Your task to perform on an android device: change notifications settings Image 0: 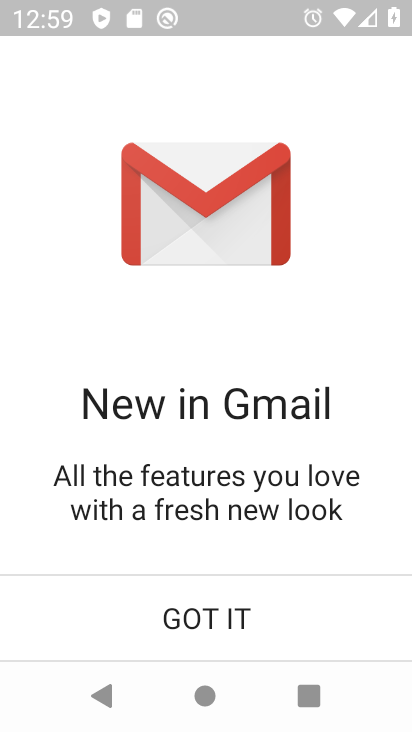
Step 0: press home button
Your task to perform on an android device: change notifications settings Image 1: 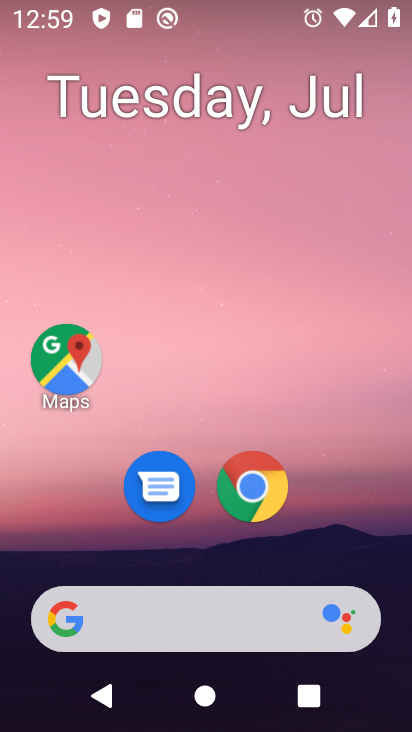
Step 1: drag from (354, 527) to (375, 142)
Your task to perform on an android device: change notifications settings Image 2: 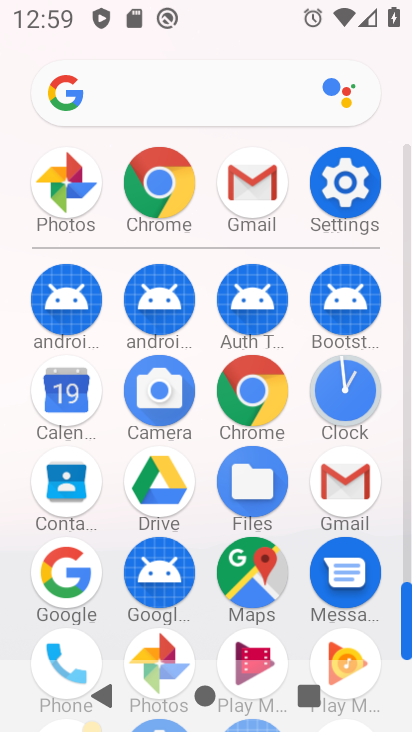
Step 2: click (355, 195)
Your task to perform on an android device: change notifications settings Image 3: 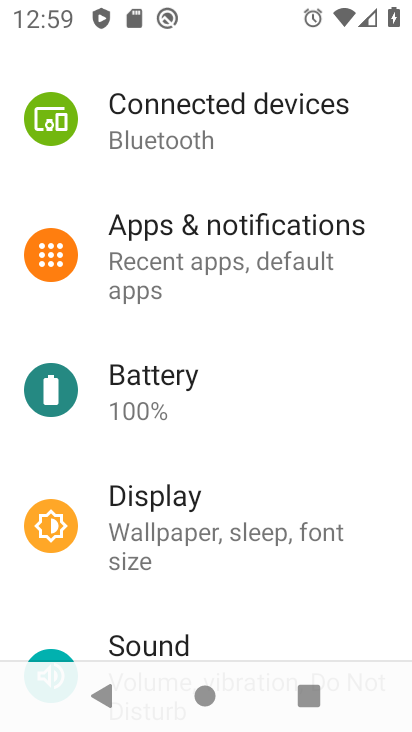
Step 3: drag from (350, 192) to (337, 327)
Your task to perform on an android device: change notifications settings Image 4: 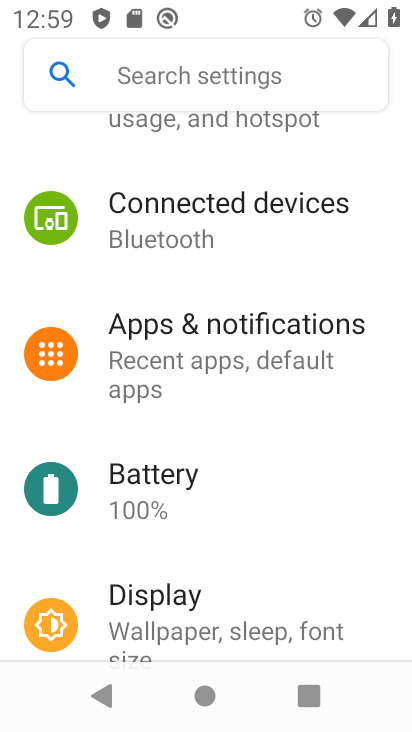
Step 4: drag from (346, 219) to (348, 334)
Your task to perform on an android device: change notifications settings Image 5: 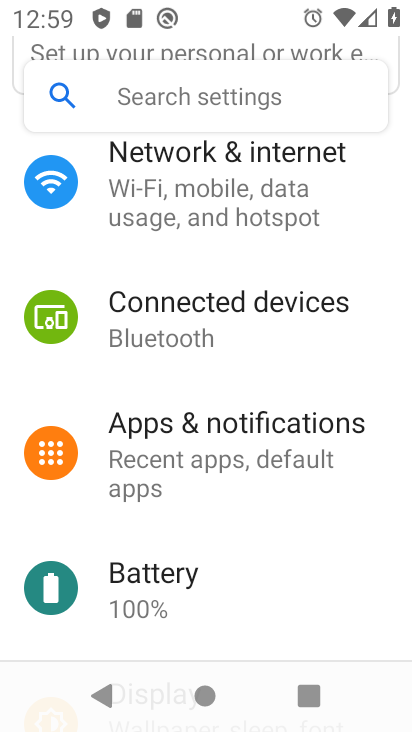
Step 5: drag from (358, 214) to (353, 422)
Your task to perform on an android device: change notifications settings Image 6: 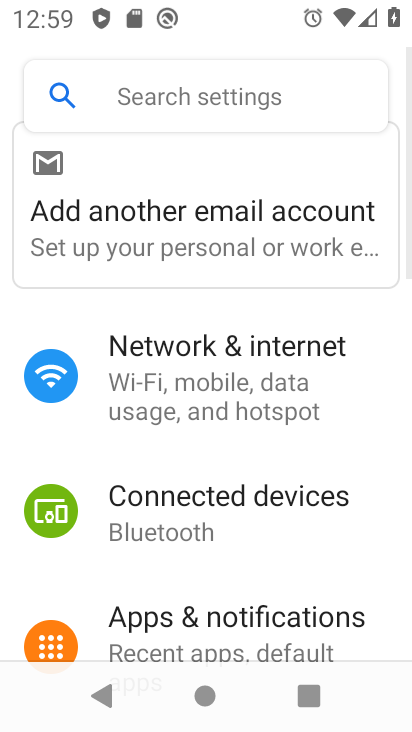
Step 6: drag from (354, 470) to (366, 367)
Your task to perform on an android device: change notifications settings Image 7: 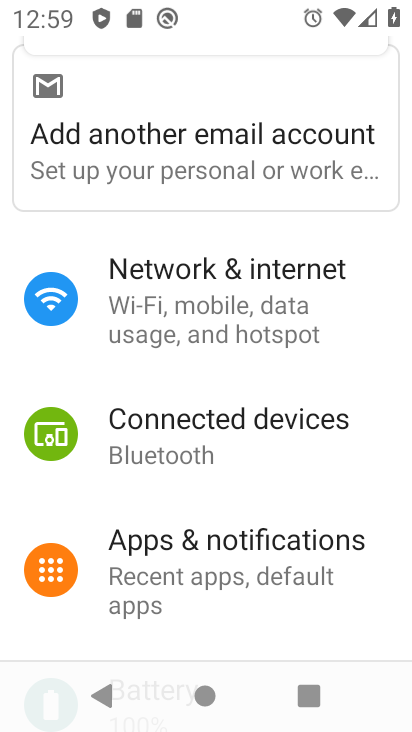
Step 7: drag from (350, 478) to (352, 357)
Your task to perform on an android device: change notifications settings Image 8: 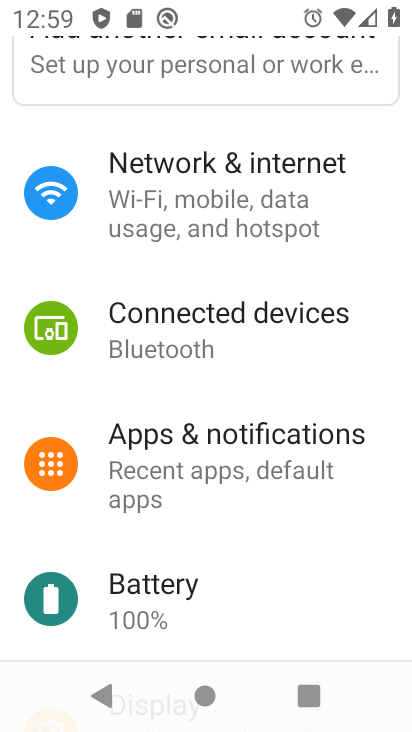
Step 8: drag from (346, 516) to (350, 397)
Your task to perform on an android device: change notifications settings Image 9: 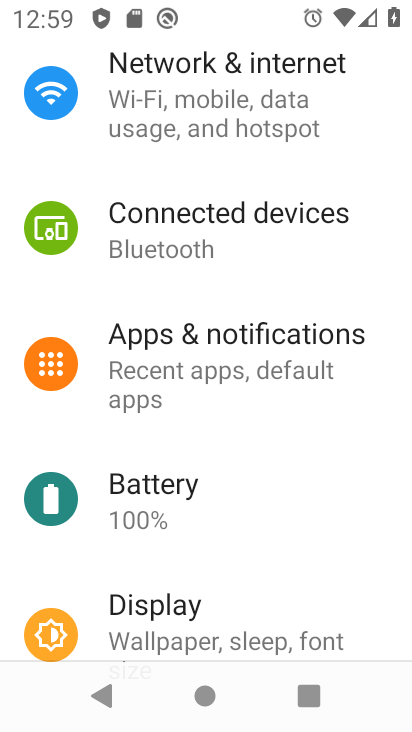
Step 9: click (268, 356)
Your task to perform on an android device: change notifications settings Image 10: 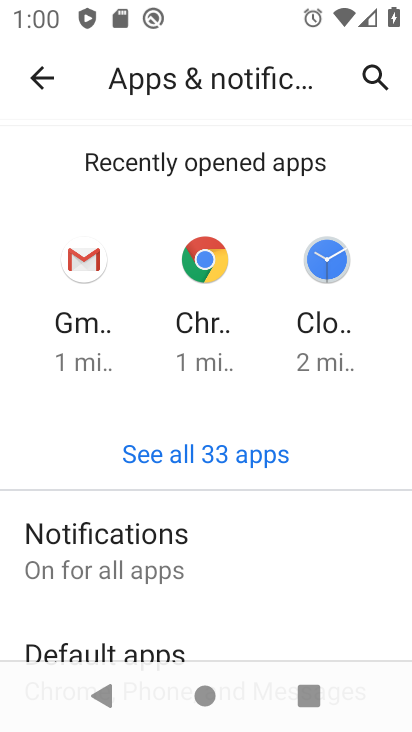
Step 10: click (217, 571)
Your task to perform on an android device: change notifications settings Image 11: 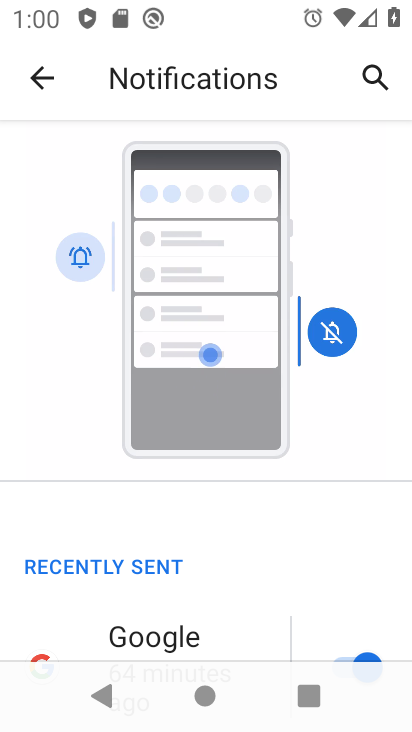
Step 11: drag from (273, 559) to (284, 399)
Your task to perform on an android device: change notifications settings Image 12: 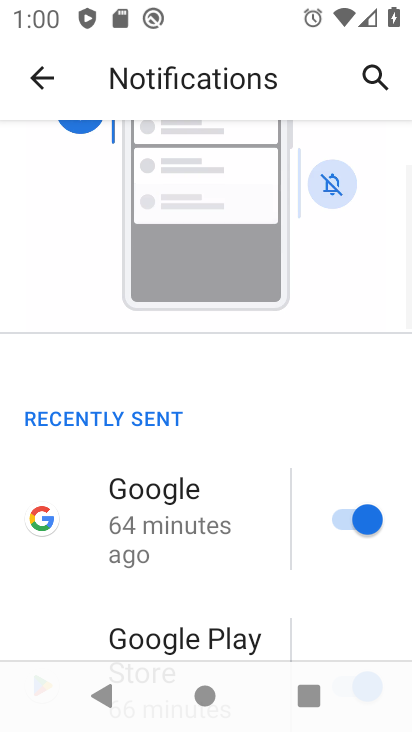
Step 12: drag from (244, 601) to (244, 465)
Your task to perform on an android device: change notifications settings Image 13: 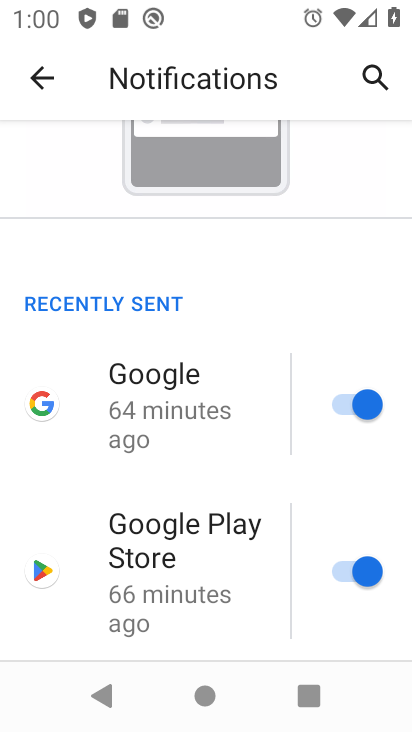
Step 13: drag from (234, 607) to (254, 476)
Your task to perform on an android device: change notifications settings Image 14: 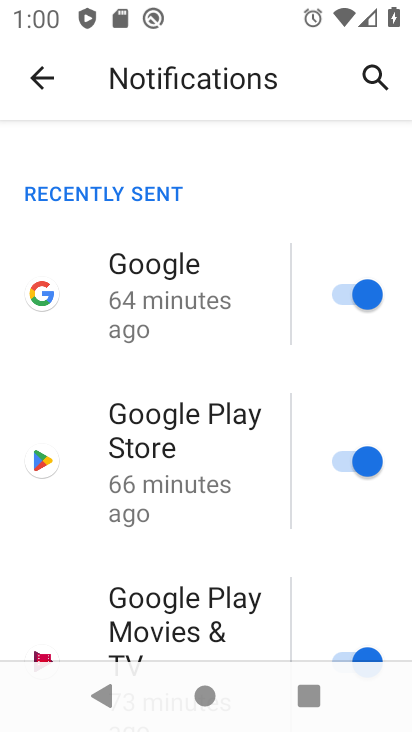
Step 14: drag from (244, 548) to (250, 476)
Your task to perform on an android device: change notifications settings Image 15: 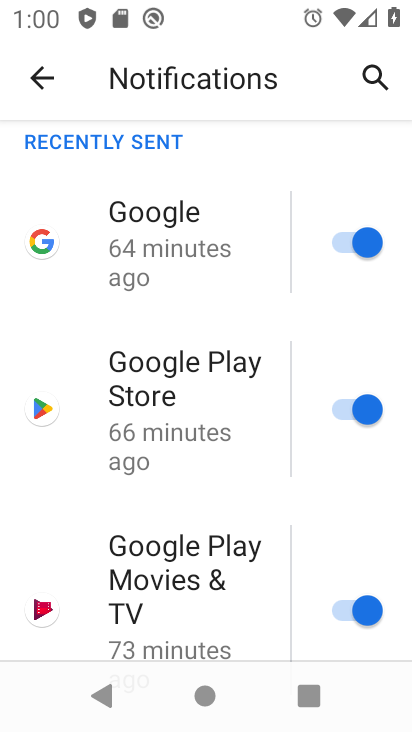
Step 15: click (368, 241)
Your task to perform on an android device: change notifications settings Image 16: 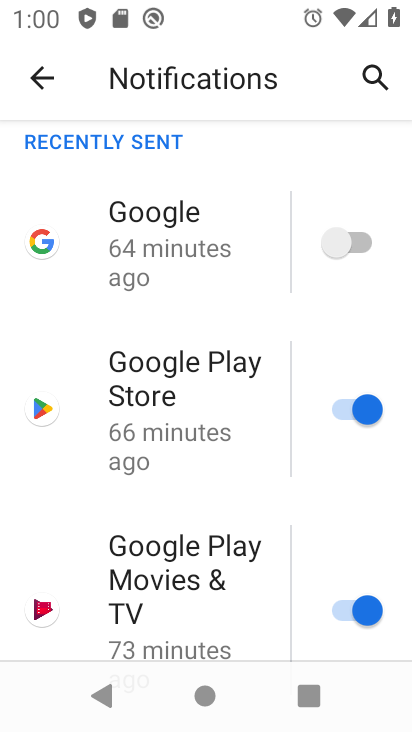
Step 16: click (363, 420)
Your task to perform on an android device: change notifications settings Image 17: 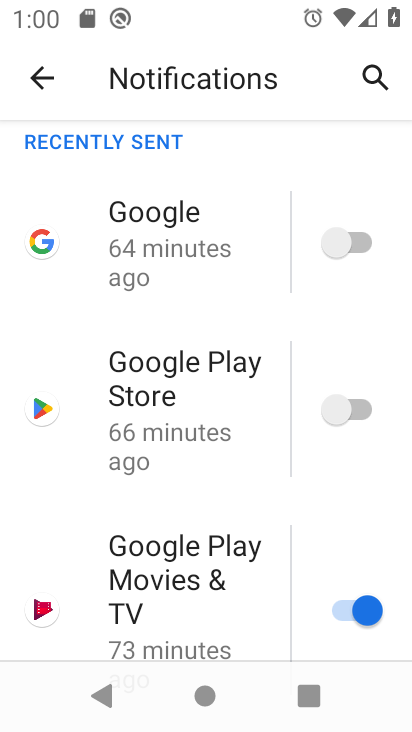
Step 17: click (350, 618)
Your task to perform on an android device: change notifications settings Image 18: 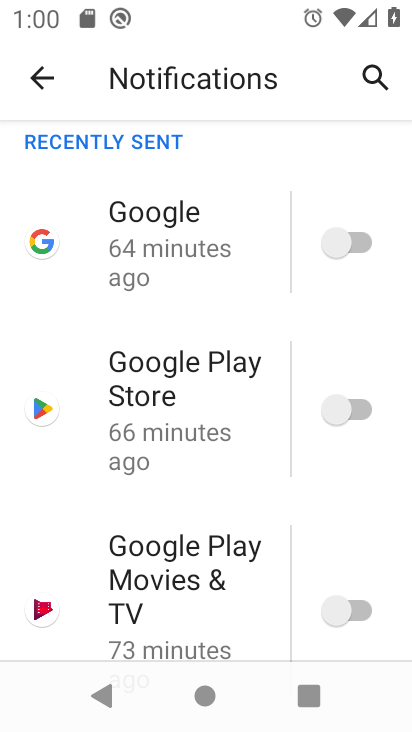
Step 18: task complete